Your task to perform on an android device: Play the last video I watched on Youtube Image 0: 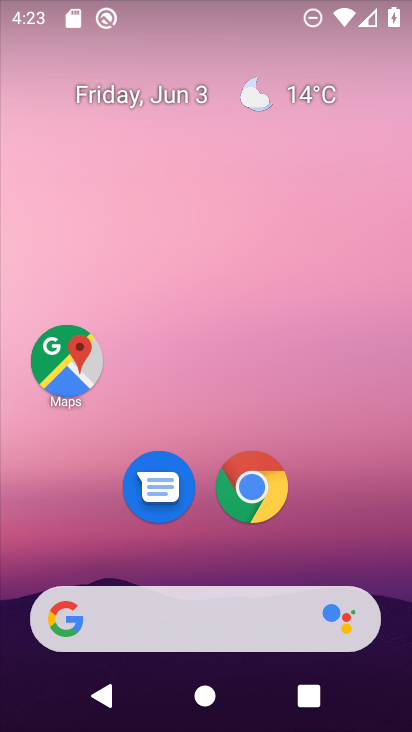
Step 0: drag from (224, 520) to (284, 129)
Your task to perform on an android device: Play the last video I watched on Youtube Image 1: 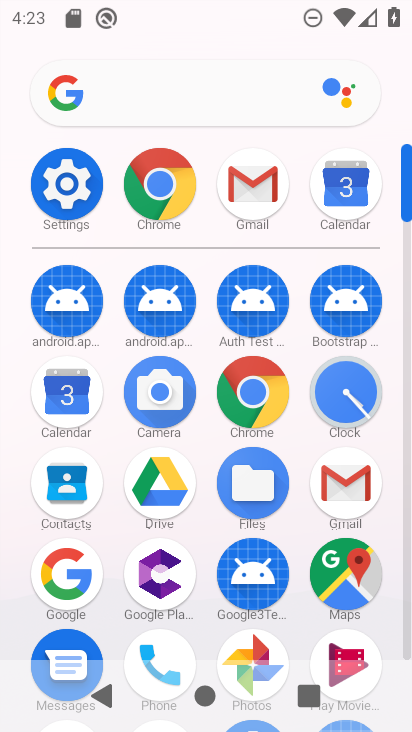
Step 1: drag from (184, 588) to (246, 45)
Your task to perform on an android device: Play the last video I watched on Youtube Image 2: 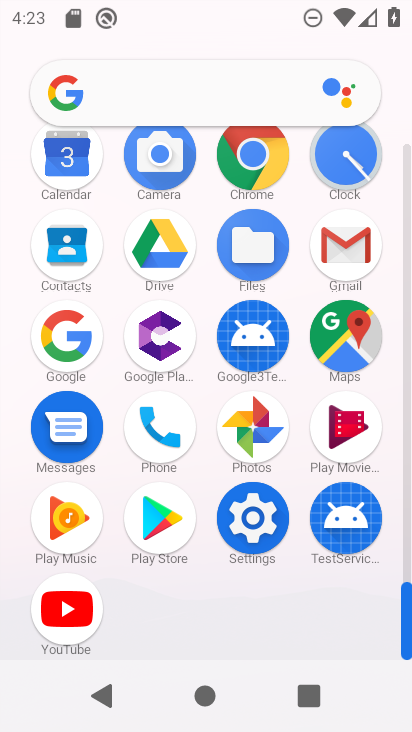
Step 2: click (53, 614)
Your task to perform on an android device: Play the last video I watched on Youtube Image 3: 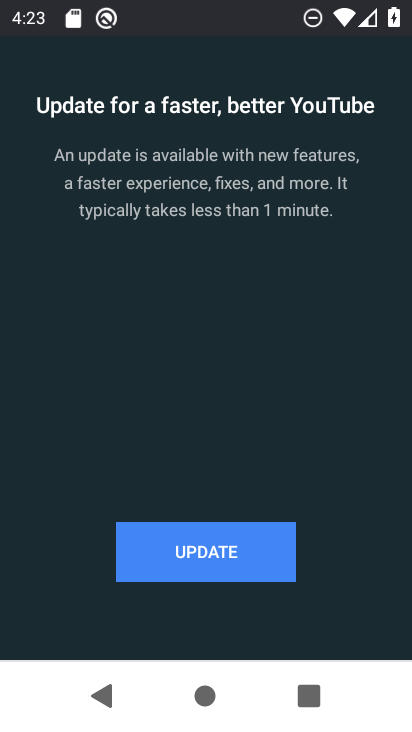
Step 3: click (255, 523)
Your task to perform on an android device: Play the last video I watched on Youtube Image 4: 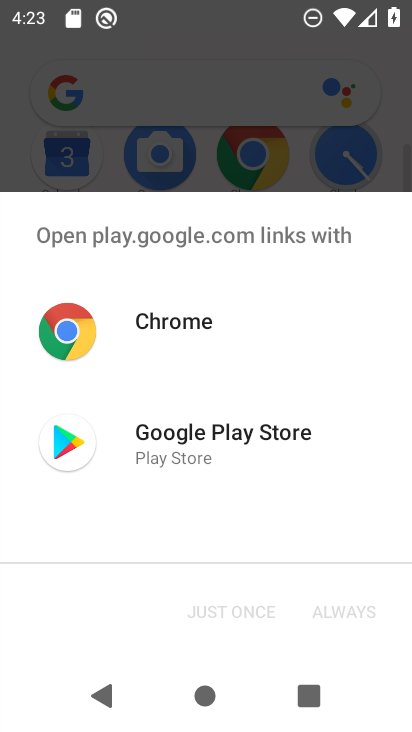
Step 4: click (186, 451)
Your task to perform on an android device: Play the last video I watched on Youtube Image 5: 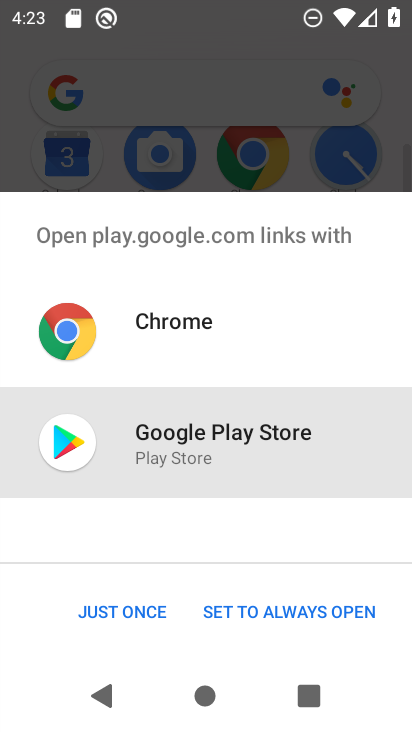
Step 5: click (237, 605)
Your task to perform on an android device: Play the last video I watched on Youtube Image 6: 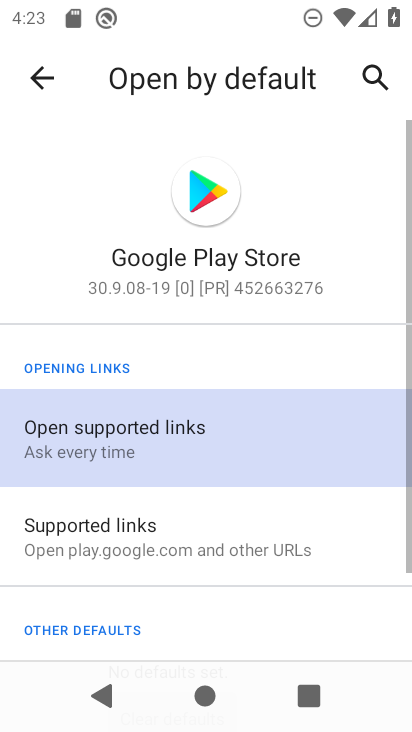
Step 6: press back button
Your task to perform on an android device: Play the last video I watched on Youtube Image 7: 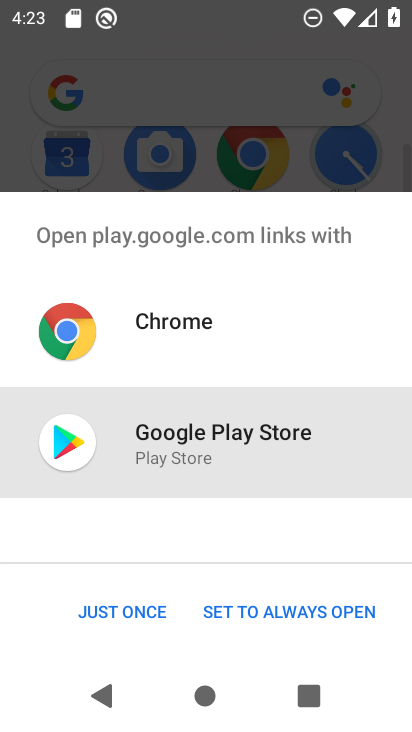
Step 7: click (88, 610)
Your task to perform on an android device: Play the last video I watched on Youtube Image 8: 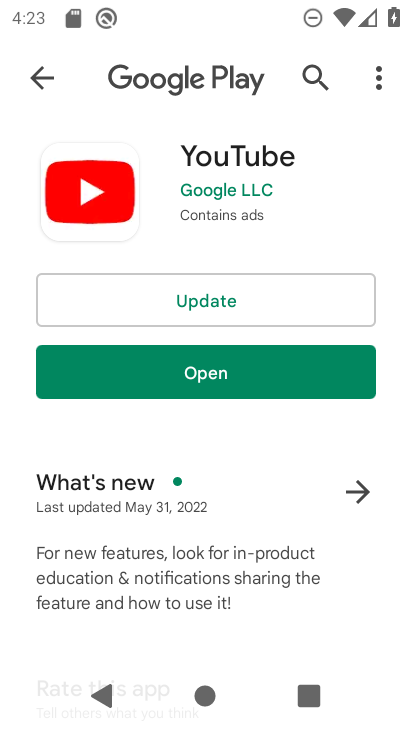
Step 8: click (208, 276)
Your task to perform on an android device: Play the last video I watched on Youtube Image 9: 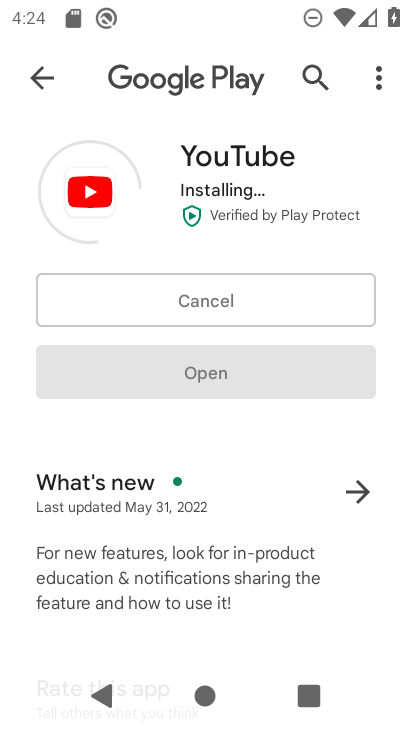
Step 9: drag from (112, 607) to (213, 239)
Your task to perform on an android device: Play the last video I watched on Youtube Image 10: 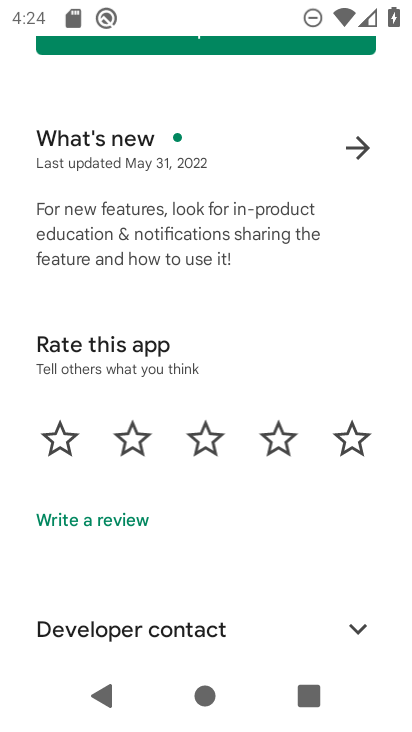
Step 10: drag from (182, 612) to (249, 145)
Your task to perform on an android device: Play the last video I watched on Youtube Image 11: 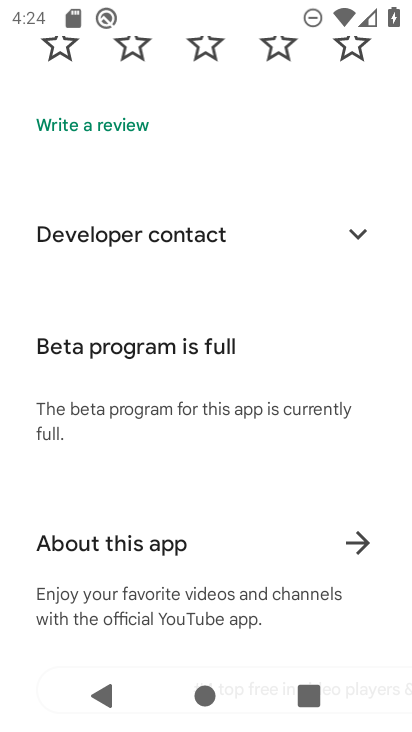
Step 11: press back button
Your task to perform on an android device: Play the last video I watched on Youtube Image 12: 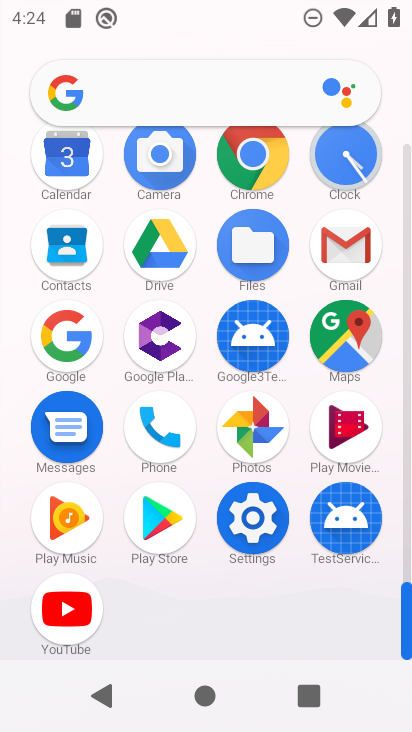
Step 12: click (33, 610)
Your task to perform on an android device: Play the last video I watched on Youtube Image 13: 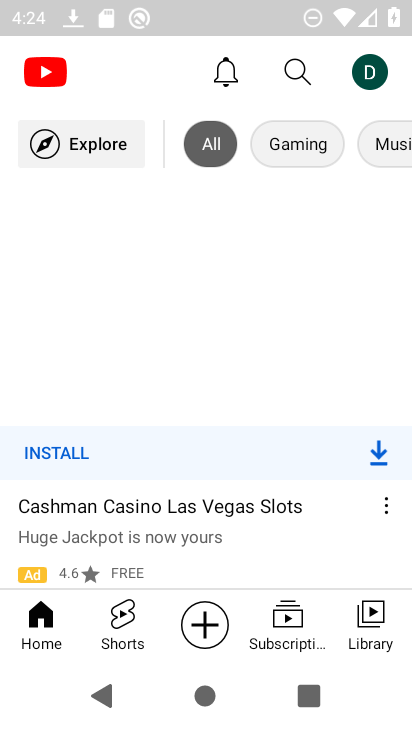
Step 13: click (361, 631)
Your task to perform on an android device: Play the last video I watched on Youtube Image 14: 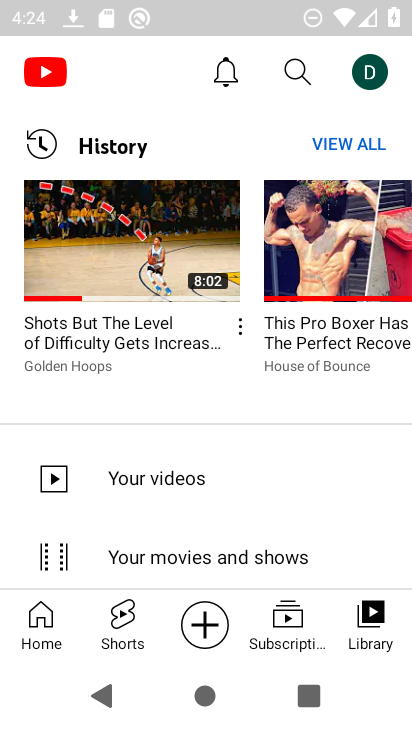
Step 14: click (103, 216)
Your task to perform on an android device: Play the last video I watched on Youtube Image 15: 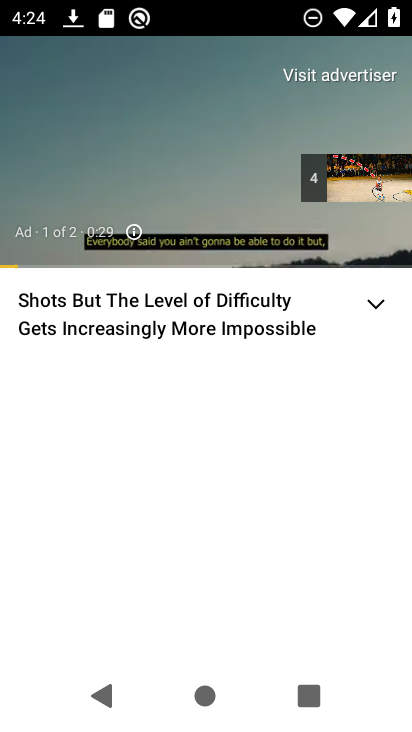
Step 15: click (199, 155)
Your task to perform on an android device: Play the last video I watched on Youtube Image 16: 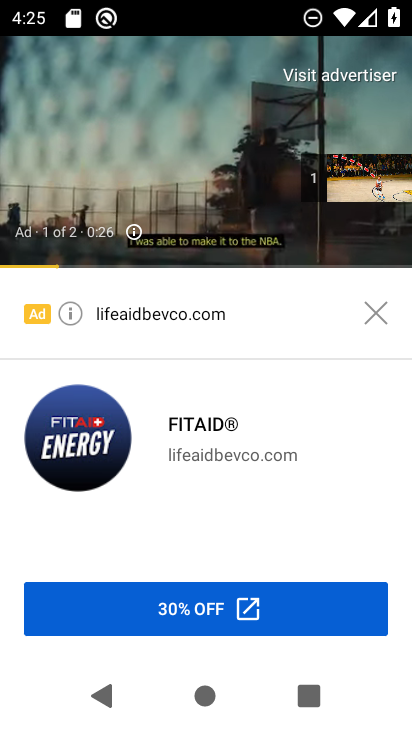
Step 16: click (207, 150)
Your task to perform on an android device: Play the last video I watched on Youtube Image 17: 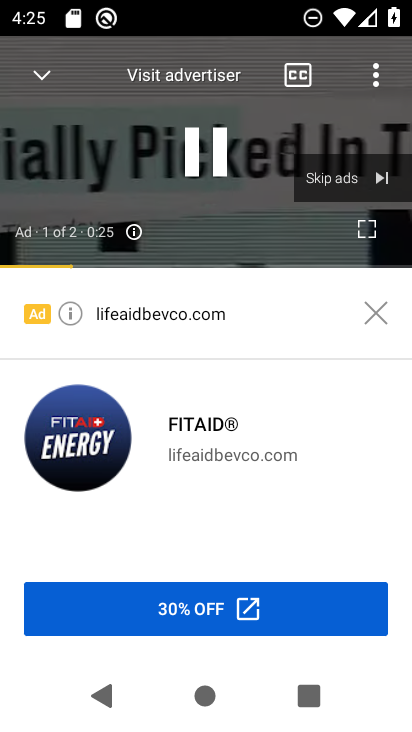
Step 17: click (207, 150)
Your task to perform on an android device: Play the last video I watched on Youtube Image 18: 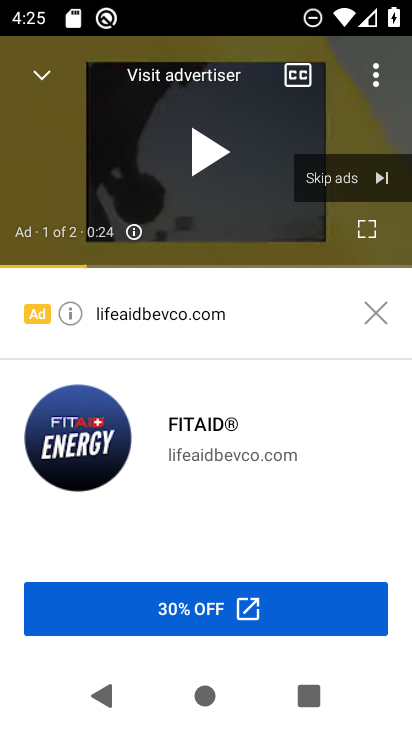
Step 18: task complete